Your task to perform on an android device: turn on the 24-hour format for clock Image 0: 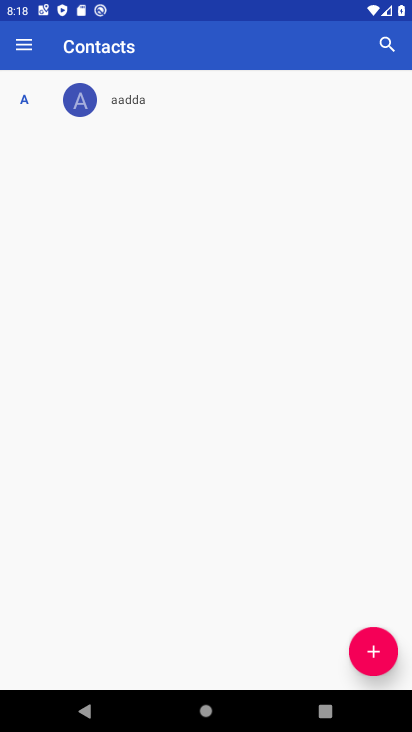
Step 0: drag from (250, 599) to (203, 145)
Your task to perform on an android device: turn on the 24-hour format for clock Image 1: 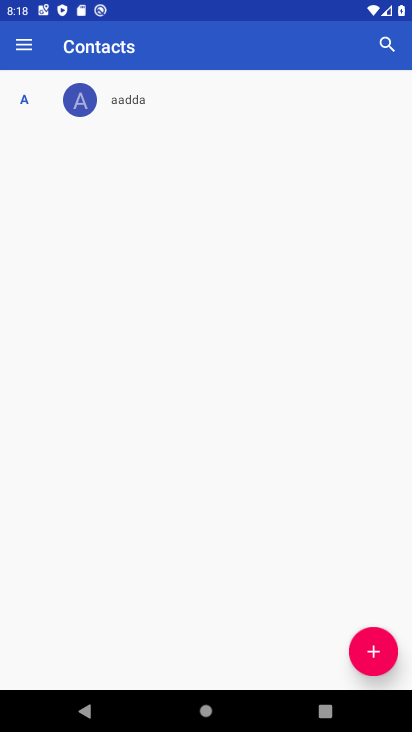
Step 1: drag from (147, 480) to (170, 317)
Your task to perform on an android device: turn on the 24-hour format for clock Image 2: 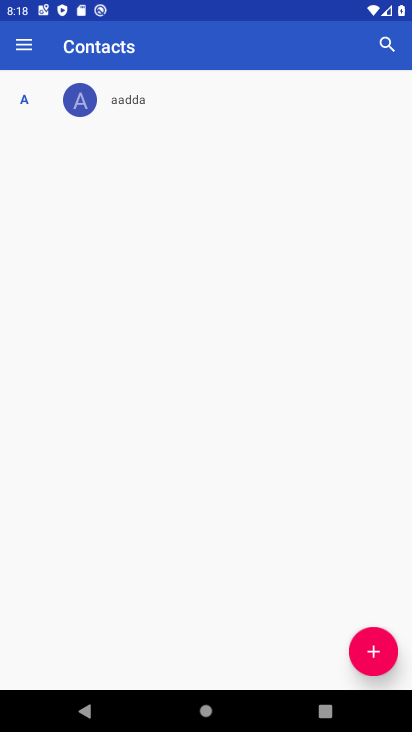
Step 2: drag from (182, 463) to (211, 317)
Your task to perform on an android device: turn on the 24-hour format for clock Image 3: 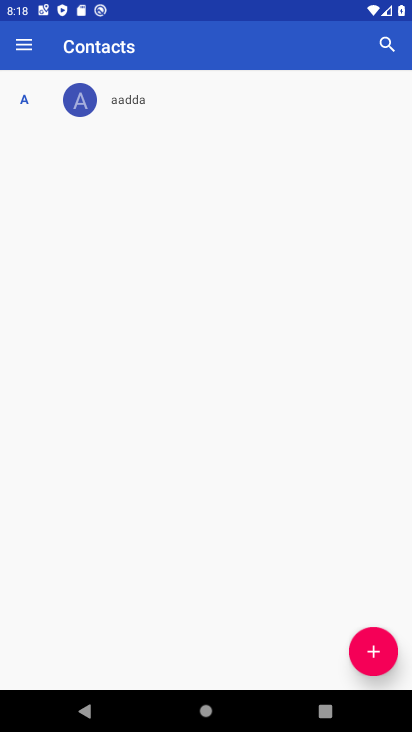
Step 3: drag from (221, 617) to (196, 355)
Your task to perform on an android device: turn on the 24-hour format for clock Image 4: 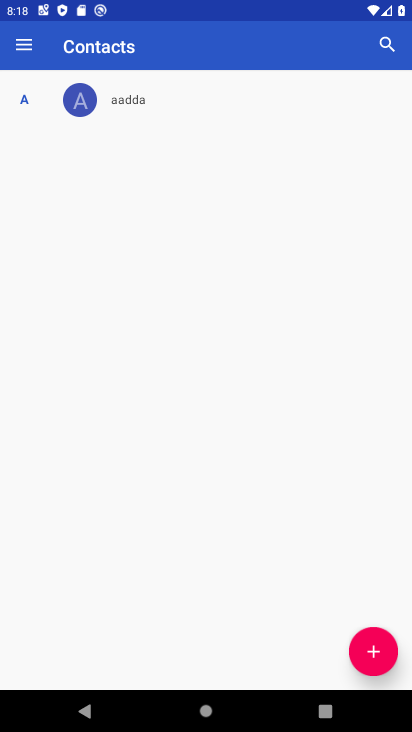
Step 4: drag from (263, 465) to (232, 317)
Your task to perform on an android device: turn on the 24-hour format for clock Image 5: 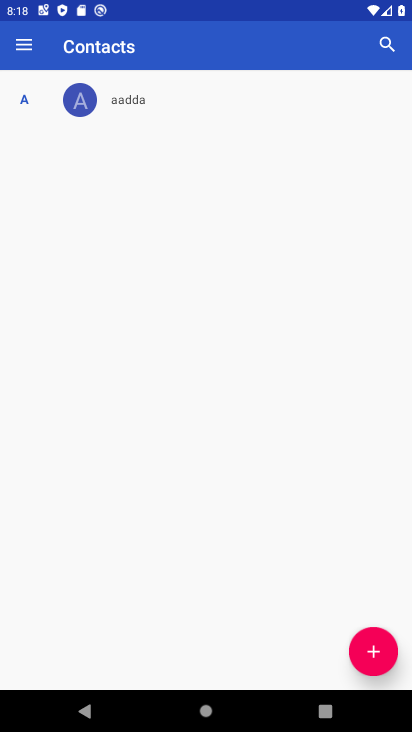
Step 5: drag from (186, 525) to (160, 305)
Your task to perform on an android device: turn on the 24-hour format for clock Image 6: 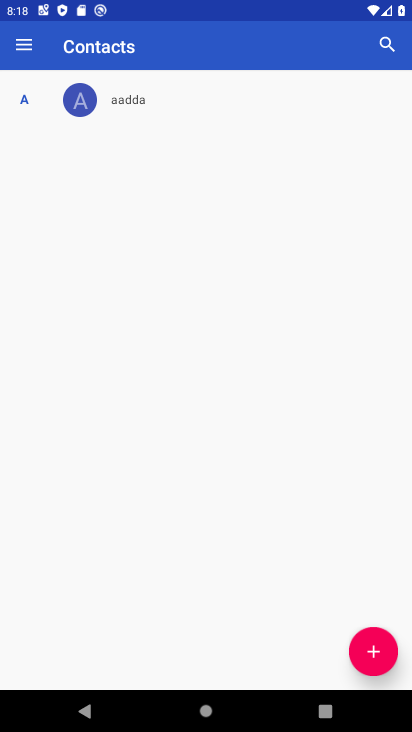
Step 6: drag from (242, 457) to (258, 305)
Your task to perform on an android device: turn on the 24-hour format for clock Image 7: 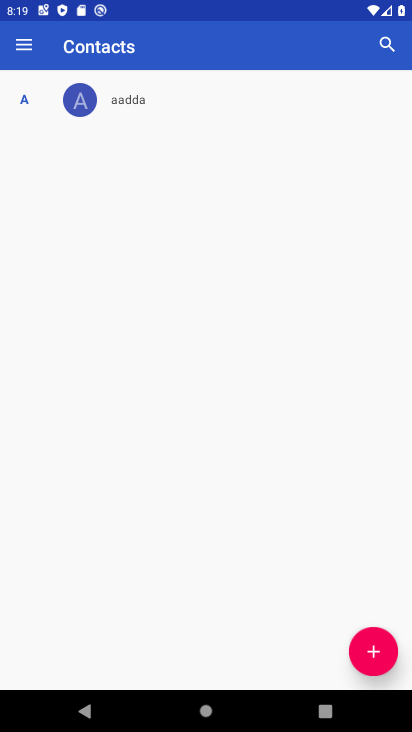
Step 7: drag from (247, 433) to (223, 210)
Your task to perform on an android device: turn on the 24-hour format for clock Image 8: 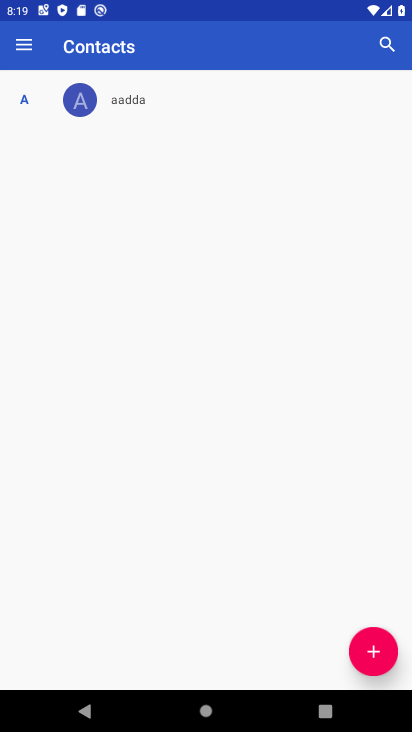
Step 8: press home button
Your task to perform on an android device: turn on the 24-hour format for clock Image 9: 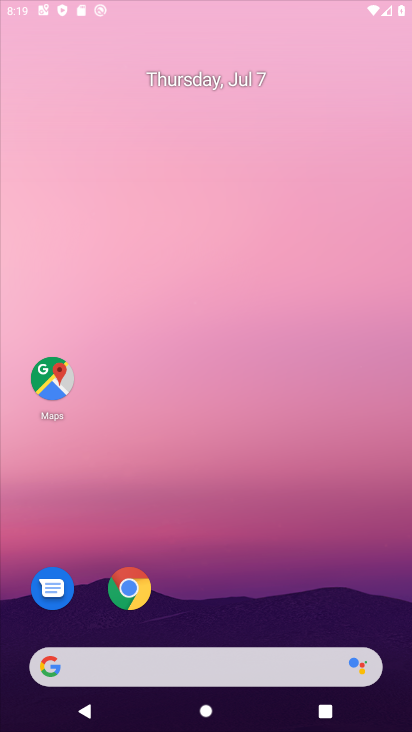
Step 9: drag from (106, 539) to (121, 249)
Your task to perform on an android device: turn on the 24-hour format for clock Image 10: 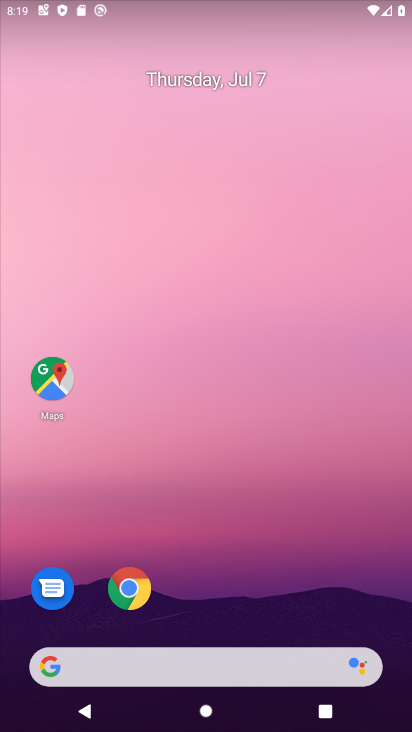
Step 10: drag from (231, 623) to (217, 135)
Your task to perform on an android device: turn on the 24-hour format for clock Image 11: 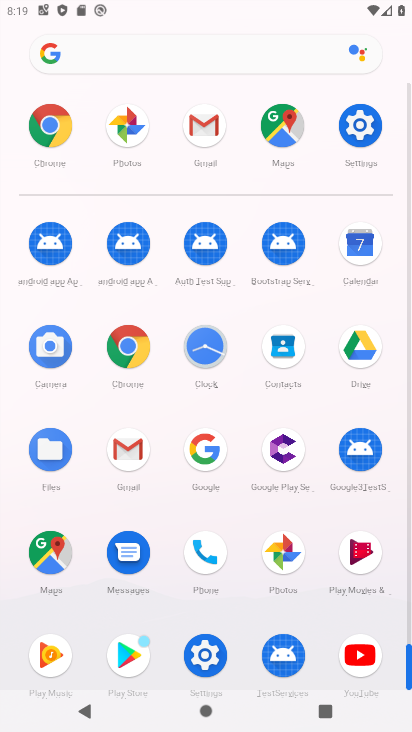
Step 11: click (188, 341)
Your task to perform on an android device: turn on the 24-hour format for clock Image 12: 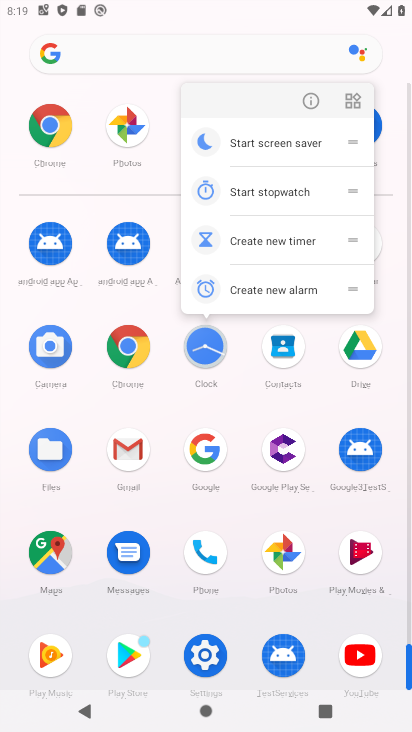
Step 12: click (303, 102)
Your task to perform on an android device: turn on the 24-hour format for clock Image 13: 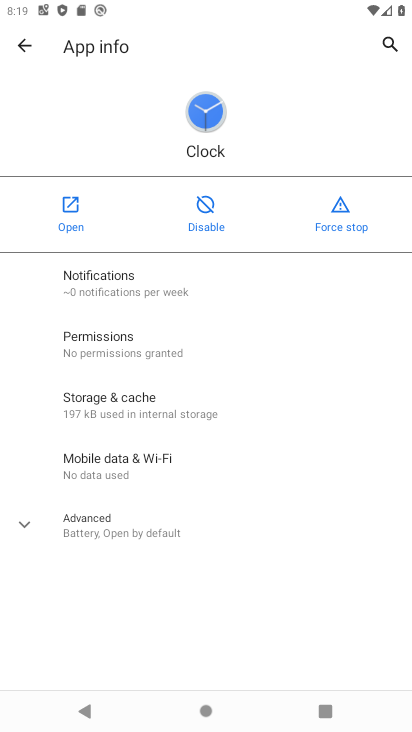
Step 13: click (68, 221)
Your task to perform on an android device: turn on the 24-hour format for clock Image 14: 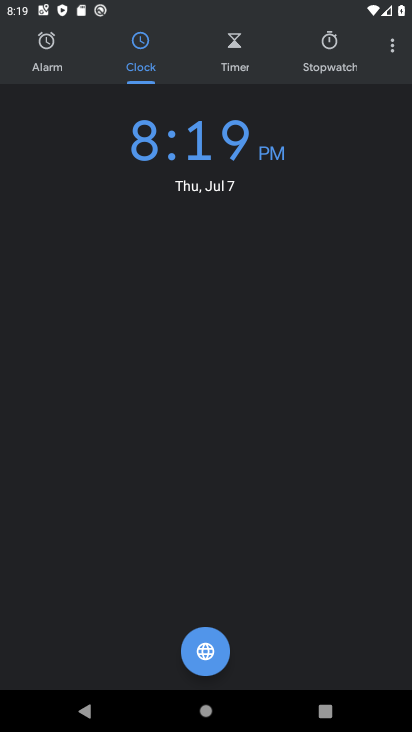
Step 14: click (390, 47)
Your task to perform on an android device: turn on the 24-hour format for clock Image 15: 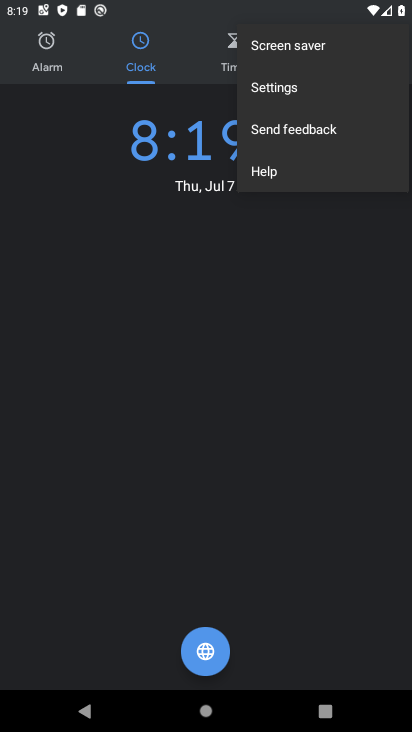
Step 15: click (329, 94)
Your task to perform on an android device: turn on the 24-hour format for clock Image 16: 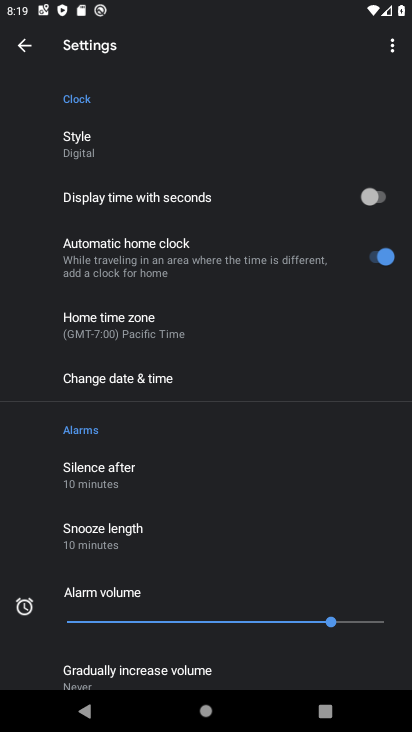
Step 16: click (121, 390)
Your task to perform on an android device: turn on the 24-hour format for clock Image 17: 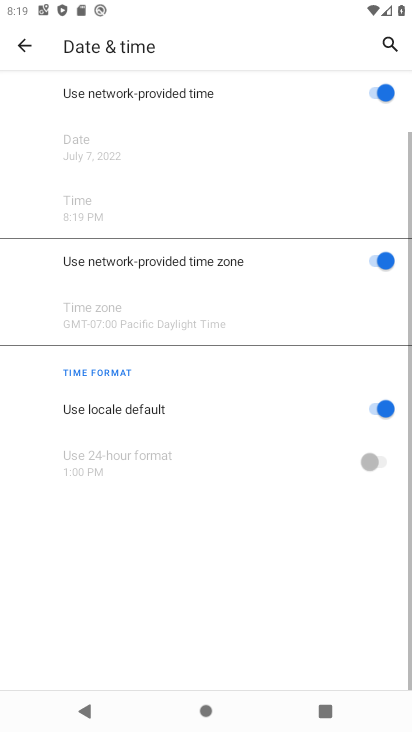
Step 17: drag from (241, 492) to (233, 292)
Your task to perform on an android device: turn on the 24-hour format for clock Image 18: 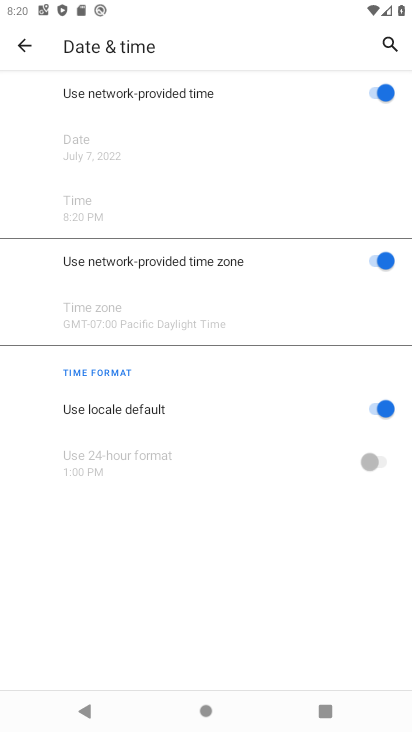
Step 18: drag from (148, 605) to (131, 401)
Your task to perform on an android device: turn on the 24-hour format for clock Image 19: 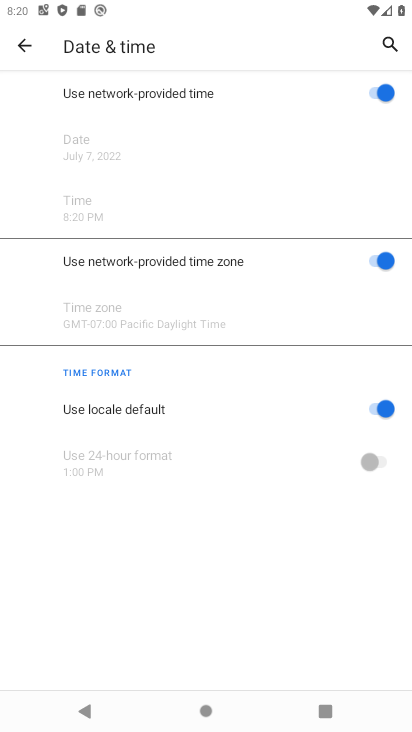
Step 19: drag from (116, 592) to (141, 447)
Your task to perform on an android device: turn on the 24-hour format for clock Image 20: 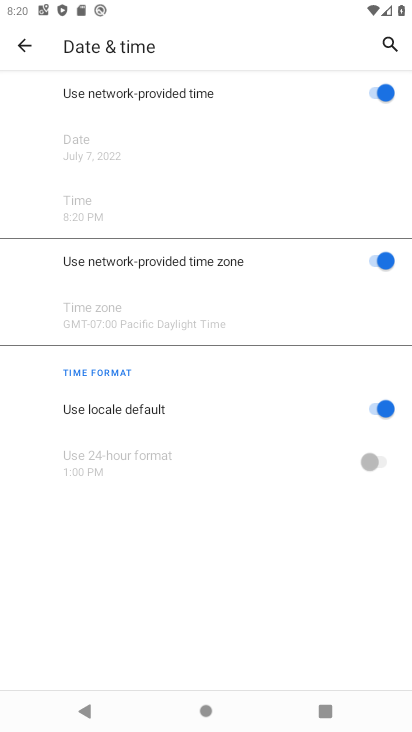
Step 20: click (377, 425)
Your task to perform on an android device: turn on the 24-hour format for clock Image 21: 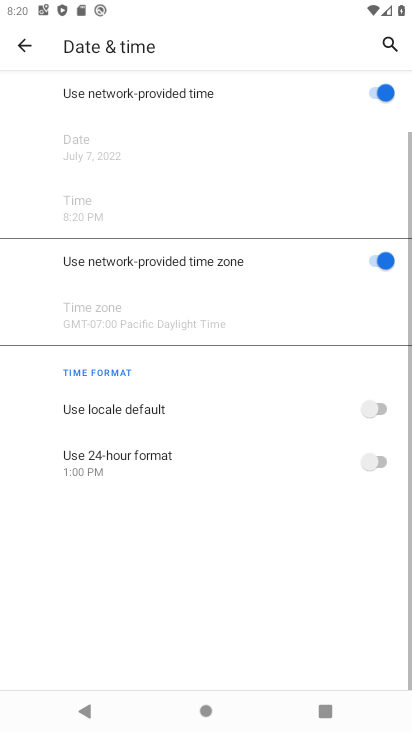
Step 21: click (377, 462)
Your task to perform on an android device: turn on the 24-hour format for clock Image 22: 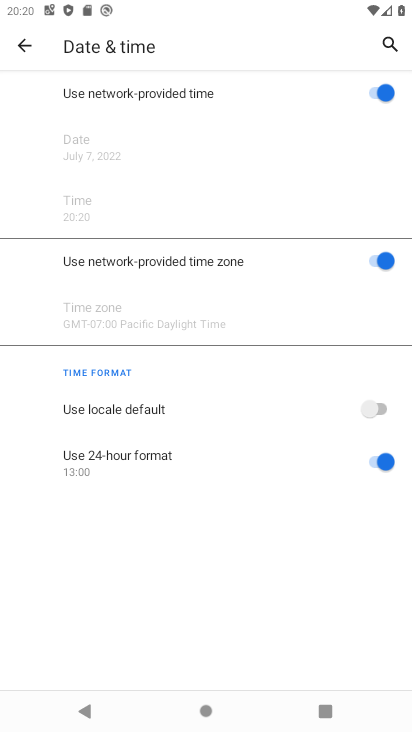
Step 22: task complete